Your task to perform on an android device: make emails show in primary in the gmail app Image 0: 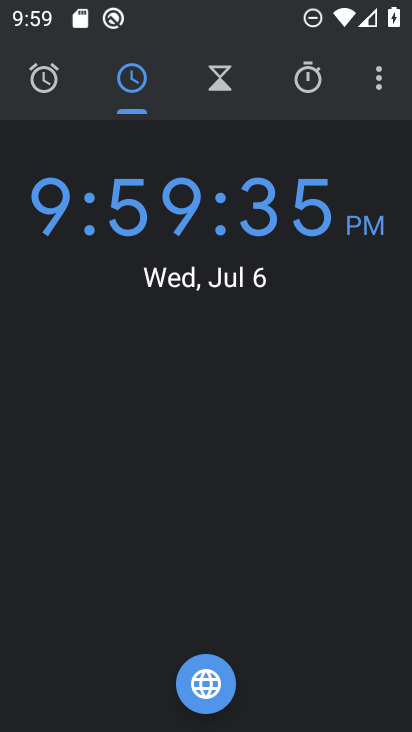
Step 0: press home button
Your task to perform on an android device: make emails show in primary in the gmail app Image 1: 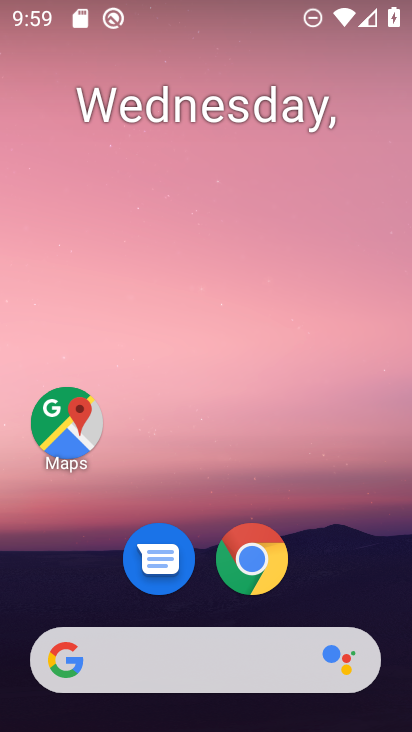
Step 1: drag from (343, 590) to (359, 140)
Your task to perform on an android device: make emails show in primary in the gmail app Image 2: 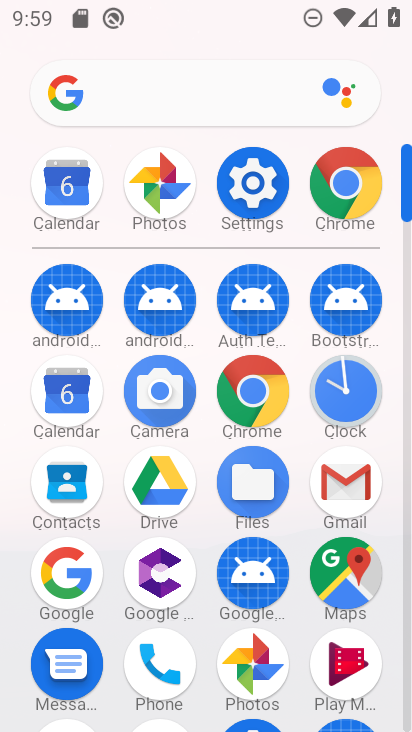
Step 2: click (359, 487)
Your task to perform on an android device: make emails show in primary in the gmail app Image 3: 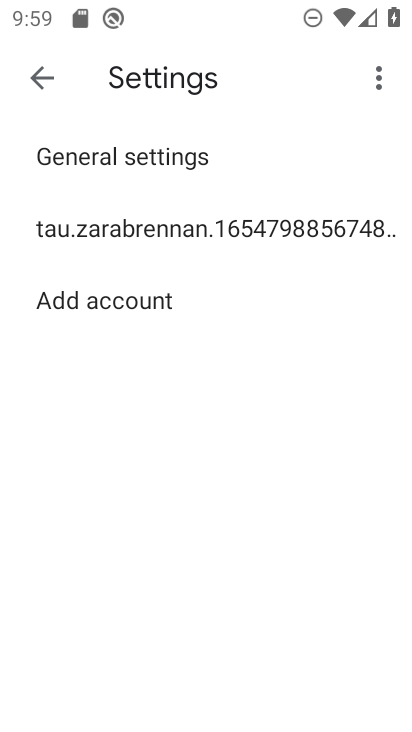
Step 3: click (287, 231)
Your task to perform on an android device: make emails show in primary in the gmail app Image 4: 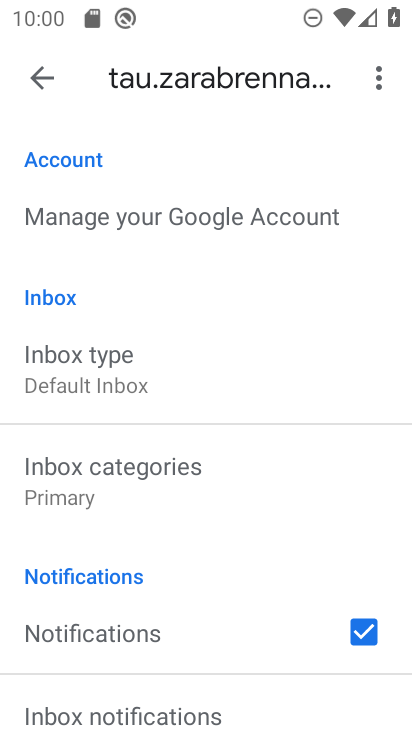
Step 4: click (177, 459)
Your task to perform on an android device: make emails show in primary in the gmail app Image 5: 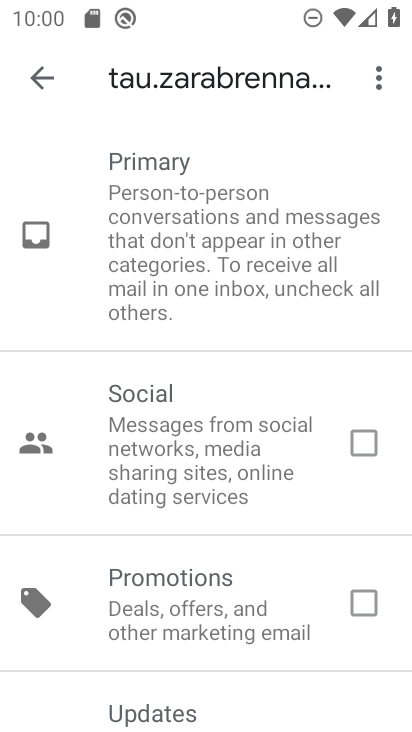
Step 5: task complete